Your task to perform on an android device: see tabs open on other devices in the chrome app Image 0: 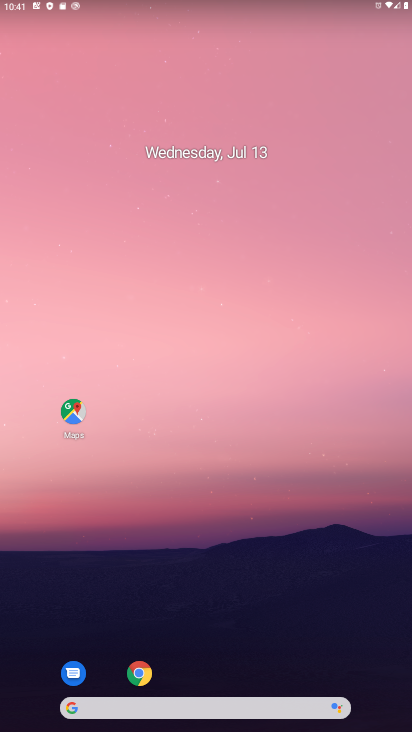
Step 0: drag from (198, 657) to (199, 103)
Your task to perform on an android device: see tabs open on other devices in the chrome app Image 1: 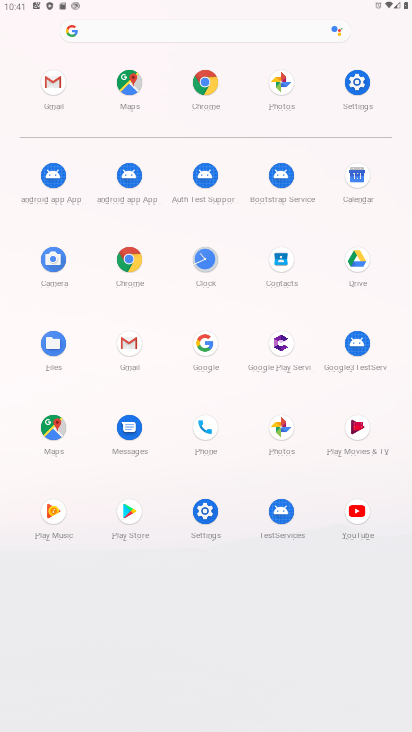
Step 1: click (204, 84)
Your task to perform on an android device: see tabs open on other devices in the chrome app Image 2: 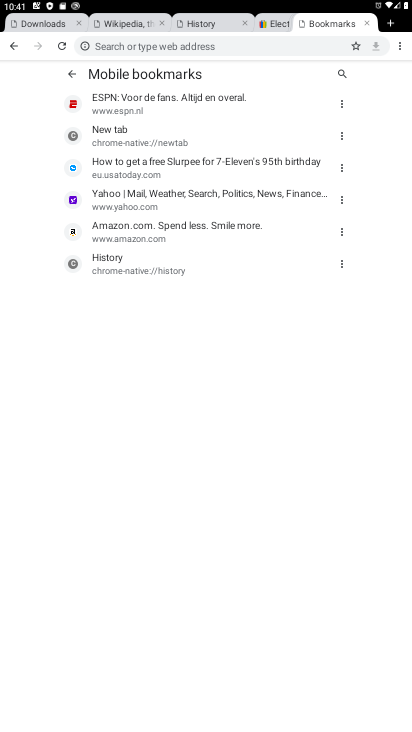
Step 2: click (405, 49)
Your task to perform on an android device: see tabs open on other devices in the chrome app Image 3: 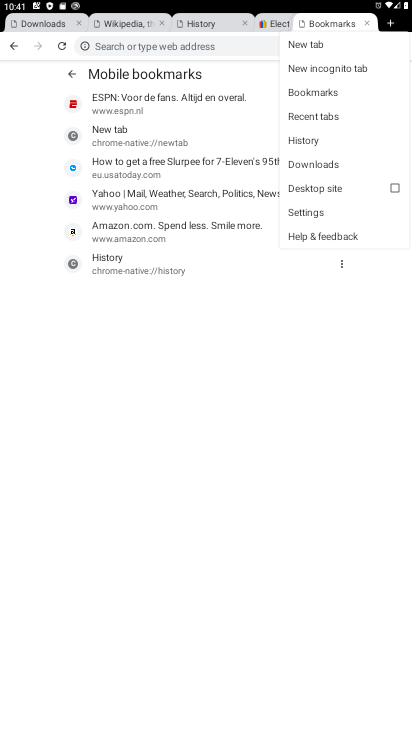
Step 3: click (347, 130)
Your task to perform on an android device: see tabs open on other devices in the chrome app Image 4: 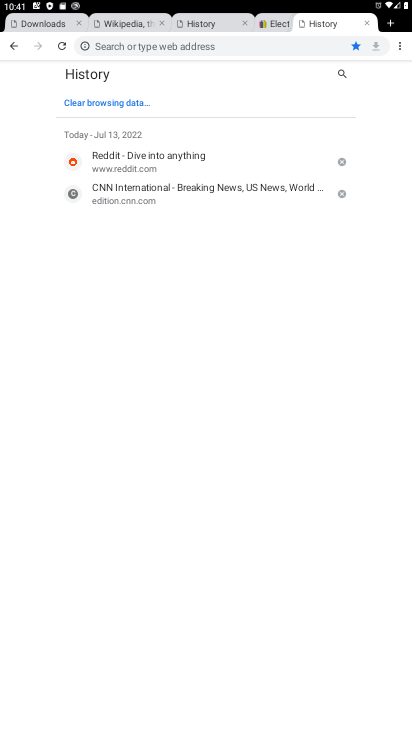
Step 4: task complete